Your task to perform on an android device: all mails in gmail Image 0: 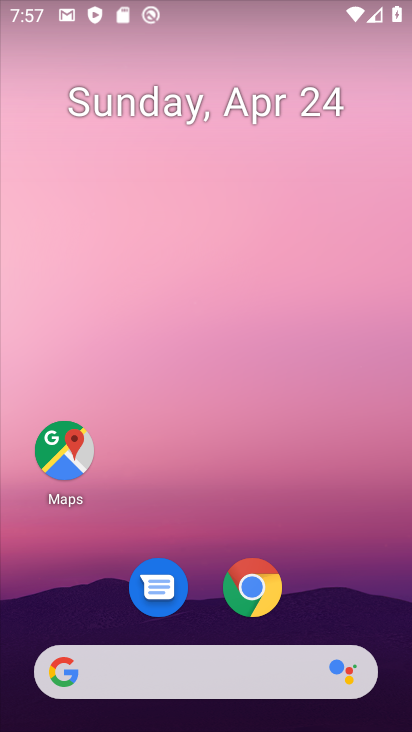
Step 0: drag from (376, 594) to (363, 181)
Your task to perform on an android device: all mails in gmail Image 1: 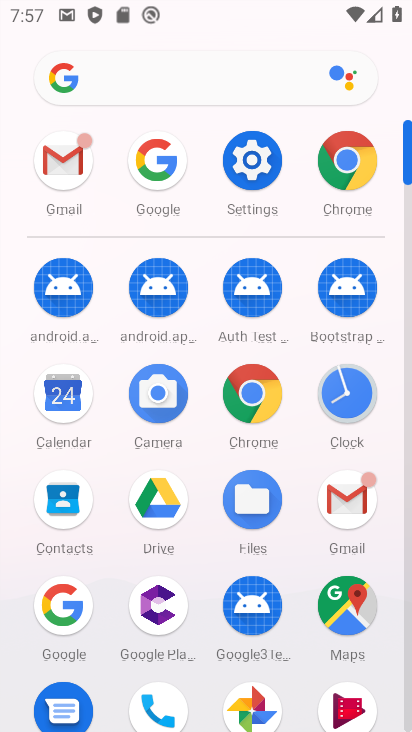
Step 1: click (68, 173)
Your task to perform on an android device: all mails in gmail Image 2: 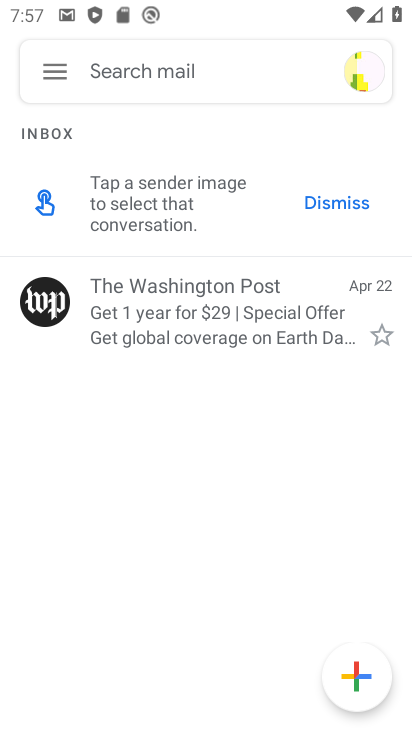
Step 2: click (150, 72)
Your task to perform on an android device: all mails in gmail Image 3: 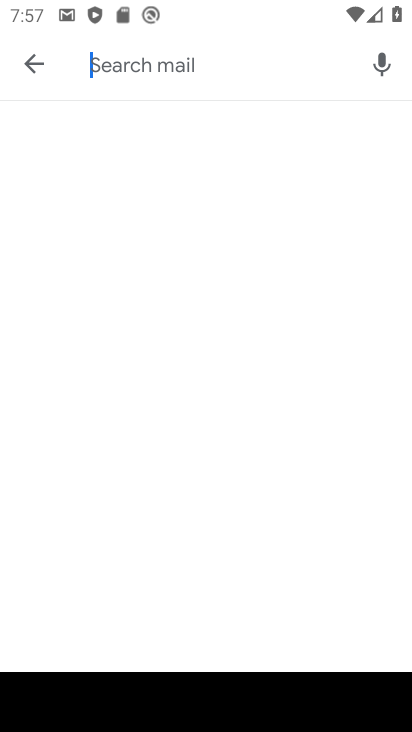
Step 3: click (25, 56)
Your task to perform on an android device: all mails in gmail Image 4: 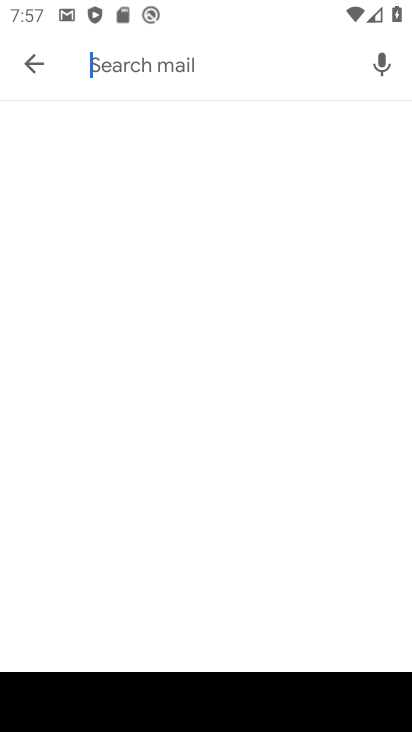
Step 4: click (41, 68)
Your task to perform on an android device: all mails in gmail Image 5: 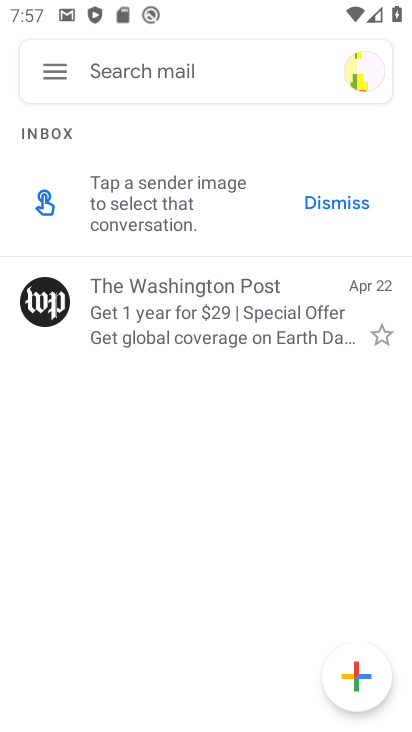
Step 5: click (48, 60)
Your task to perform on an android device: all mails in gmail Image 6: 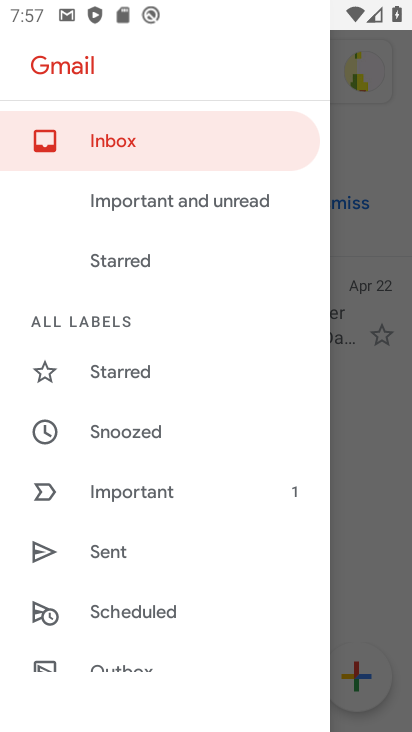
Step 6: drag from (209, 613) to (174, 290)
Your task to perform on an android device: all mails in gmail Image 7: 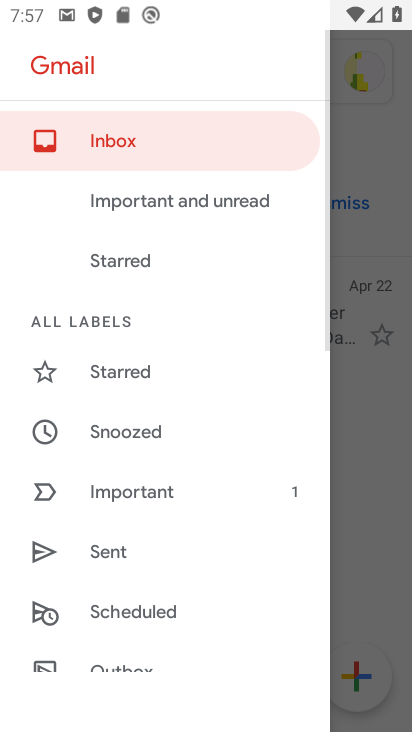
Step 7: drag from (193, 623) to (181, 284)
Your task to perform on an android device: all mails in gmail Image 8: 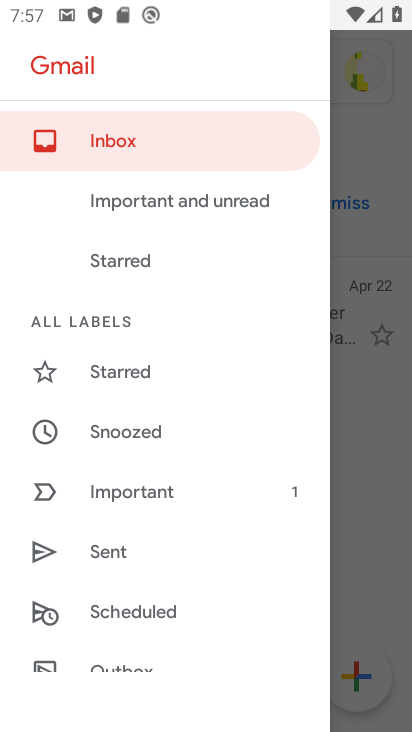
Step 8: drag from (94, 627) to (153, 174)
Your task to perform on an android device: all mails in gmail Image 9: 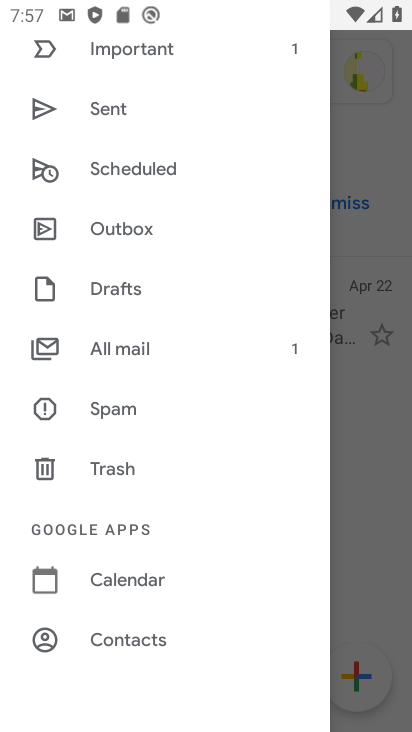
Step 9: click (147, 342)
Your task to perform on an android device: all mails in gmail Image 10: 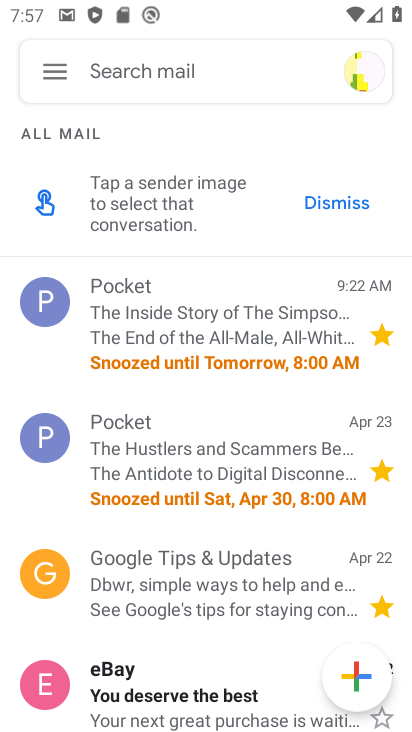
Step 10: task complete